Your task to perform on an android device: Add macbook to the cart on walmart.com, then select checkout. Image 0: 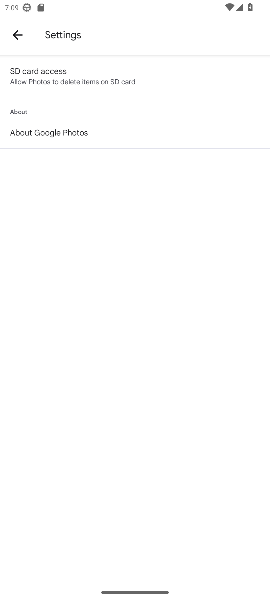
Step 0: click (77, 77)
Your task to perform on an android device: Add macbook to the cart on walmart.com, then select checkout. Image 1: 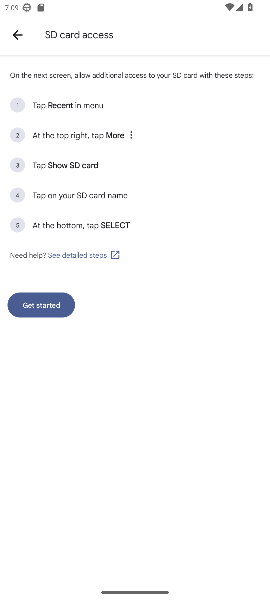
Step 1: task complete